Your task to perform on an android device: toggle show notifications on the lock screen Image 0: 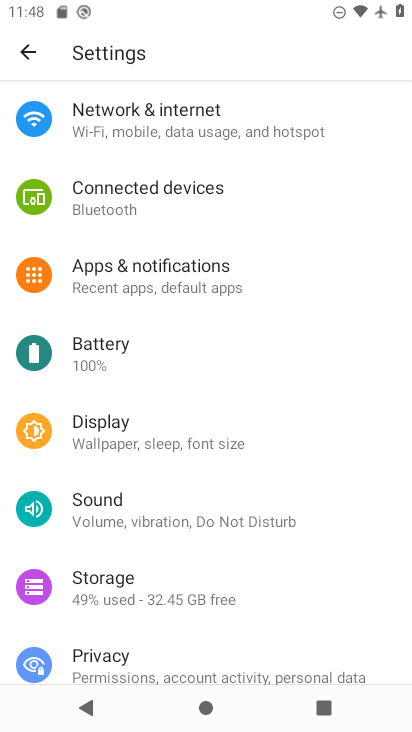
Step 0: click (188, 273)
Your task to perform on an android device: toggle show notifications on the lock screen Image 1: 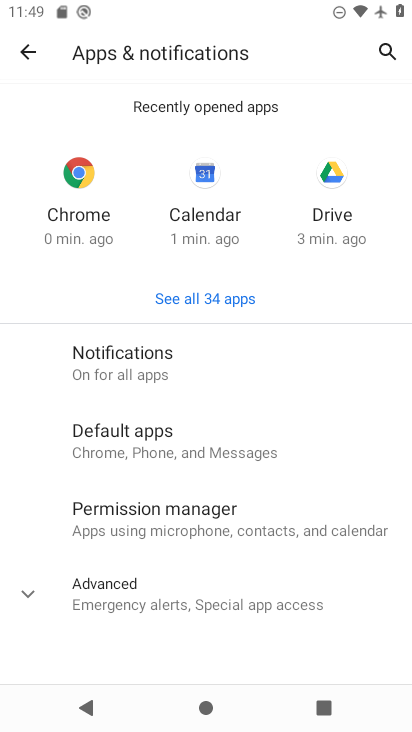
Step 1: click (166, 359)
Your task to perform on an android device: toggle show notifications on the lock screen Image 2: 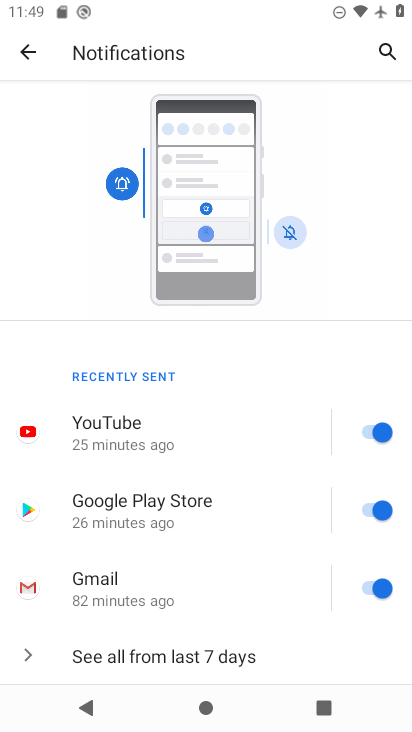
Step 2: drag from (174, 625) to (220, 314)
Your task to perform on an android device: toggle show notifications on the lock screen Image 3: 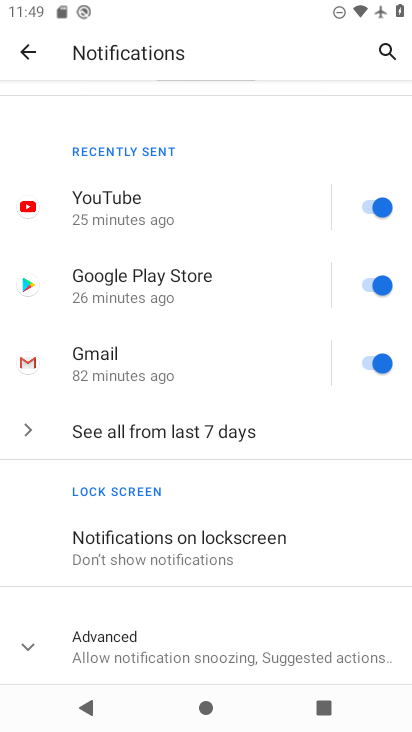
Step 3: drag from (185, 570) to (201, 278)
Your task to perform on an android device: toggle show notifications on the lock screen Image 4: 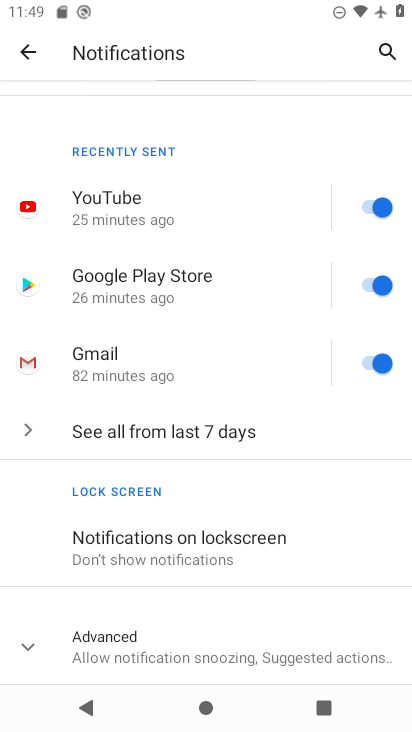
Step 4: click (214, 537)
Your task to perform on an android device: toggle show notifications on the lock screen Image 5: 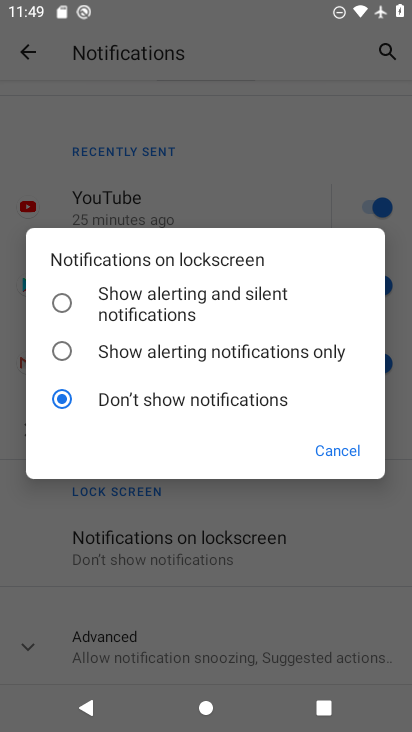
Step 5: press back button
Your task to perform on an android device: toggle show notifications on the lock screen Image 6: 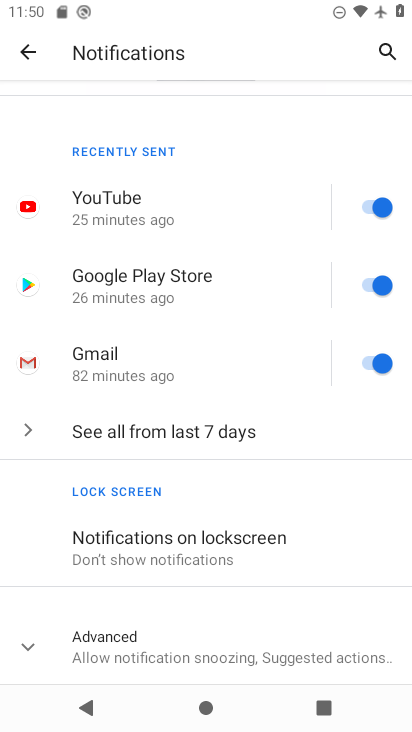
Step 6: click (214, 537)
Your task to perform on an android device: toggle show notifications on the lock screen Image 7: 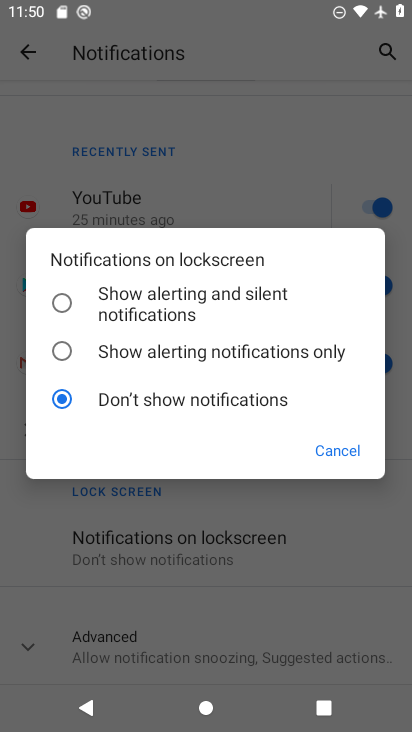
Step 7: click (138, 309)
Your task to perform on an android device: toggle show notifications on the lock screen Image 8: 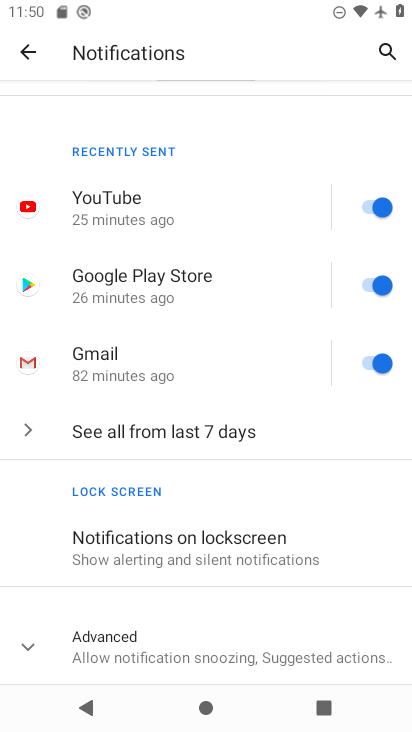
Step 8: task complete